Your task to perform on an android device: turn on notifications settings in the gmail app Image 0: 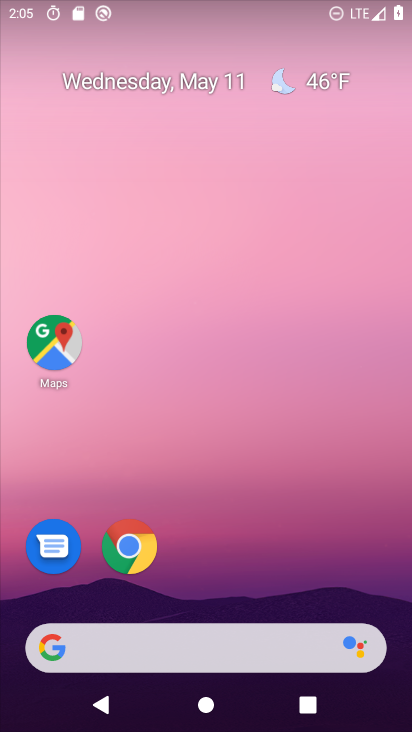
Step 0: drag from (288, 681) to (219, 272)
Your task to perform on an android device: turn on notifications settings in the gmail app Image 1: 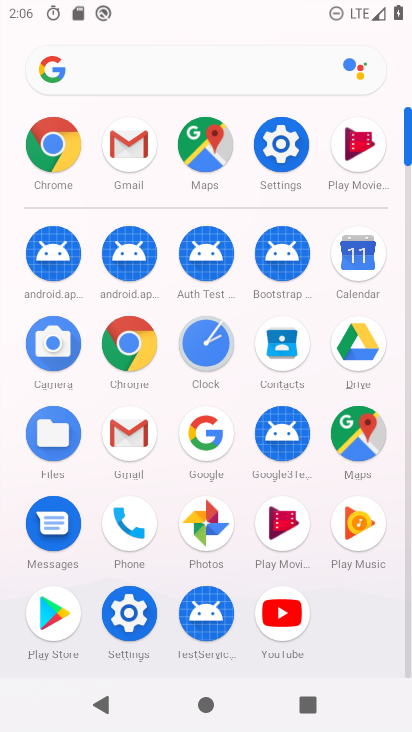
Step 1: click (125, 451)
Your task to perform on an android device: turn on notifications settings in the gmail app Image 2: 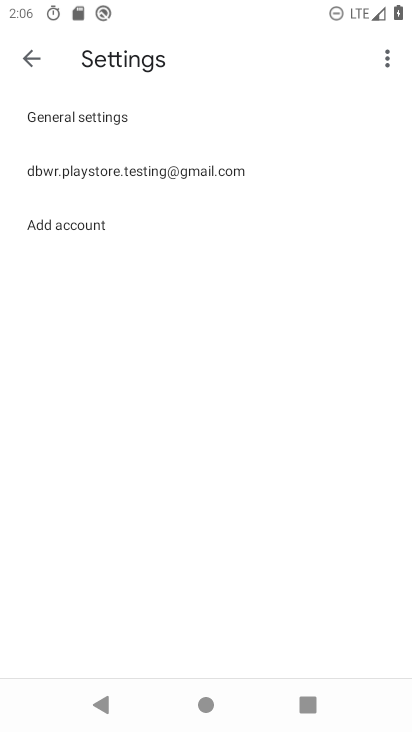
Step 2: click (151, 161)
Your task to perform on an android device: turn on notifications settings in the gmail app Image 3: 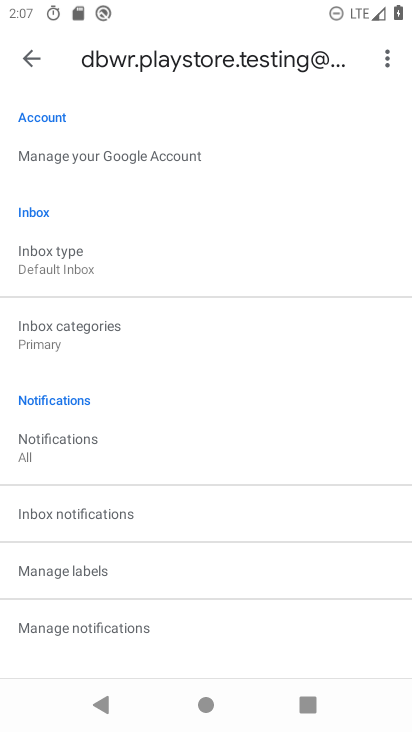
Step 3: click (84, 445)
Your task to perform on an android device: turn on notifications settings in the gmail app Image 4: 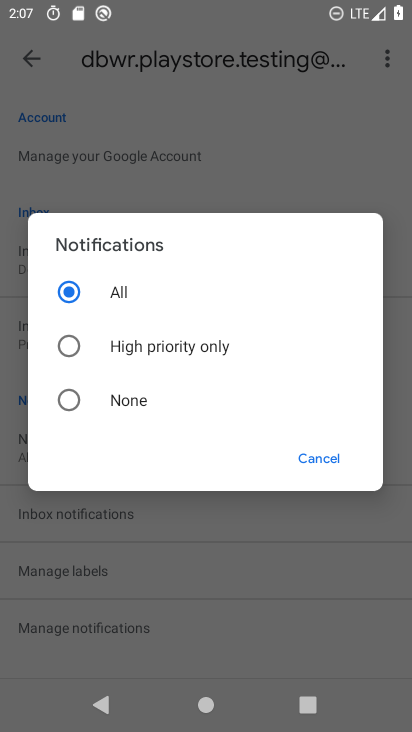
Step 4: task complete